Your task to perform on an android device: see tabs open on other devices in the chrome app Image 0: 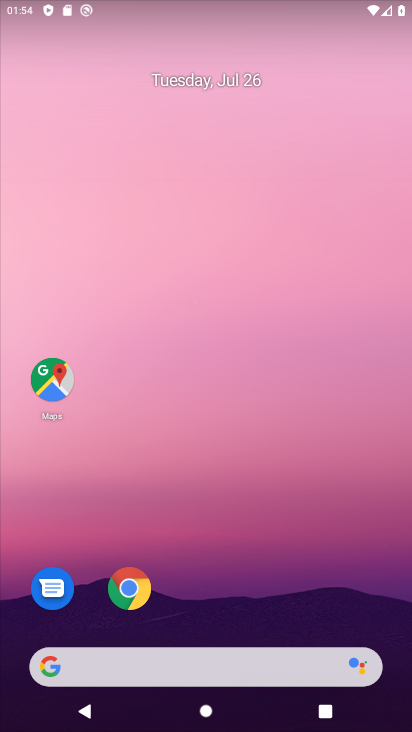
Step 0: click (144, 587)
Your task to perform on an android device: see tabs open on other devices in the chrome app Image 1: 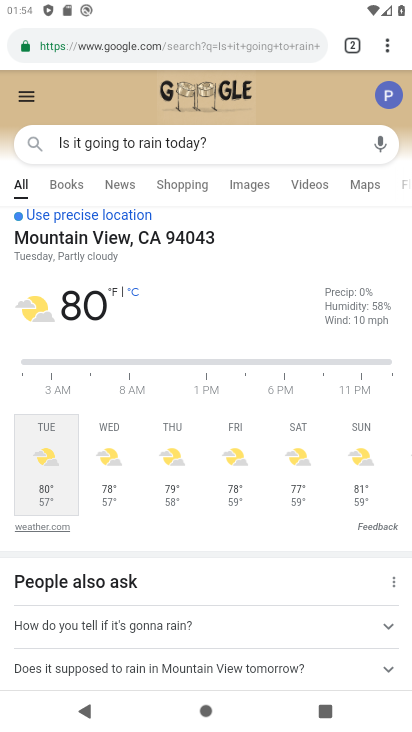
Step 1: click (398, 56)
Your task to perform on an android device: see tabs open on other devices in the chrome app Image 2: 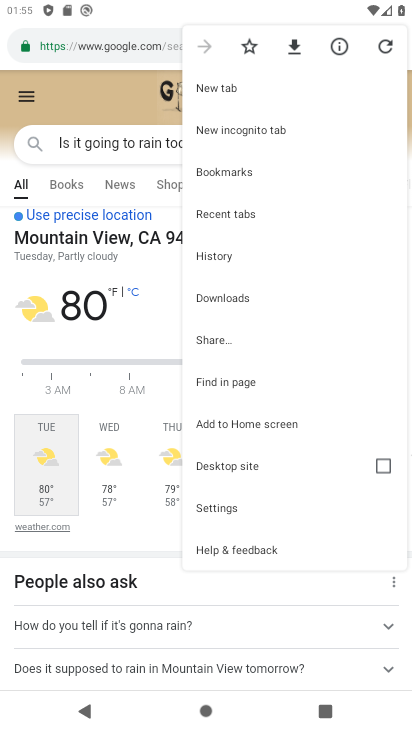
Step 2: click (237, 201)
Your task to perform on an android device: see tabs open on other devices in the chrome app Image 3: 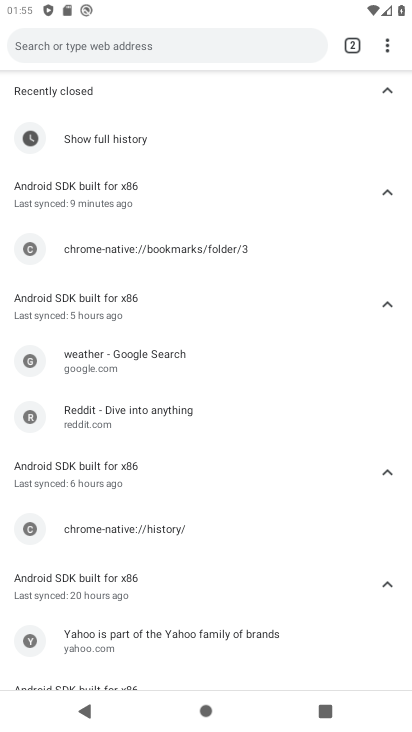
Step 3: task complete